Your task to perform on an android device: Search for the new Steph Curry shoes on Nike.com Image 0: 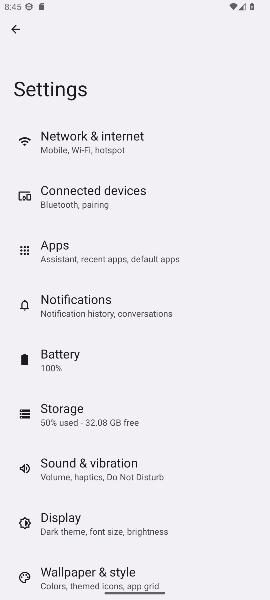
Step 0: press home button
Your task to perform on an android device: Search for the new Steph Curry shoes on Nike.com Image 1: 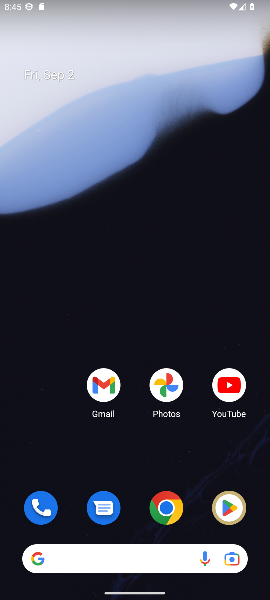
Step 1: drag from (192, 469) to (205, 90)
Your task to perform on an android device: Search for the new Steph Curry shoes on Nike.com Image 2: 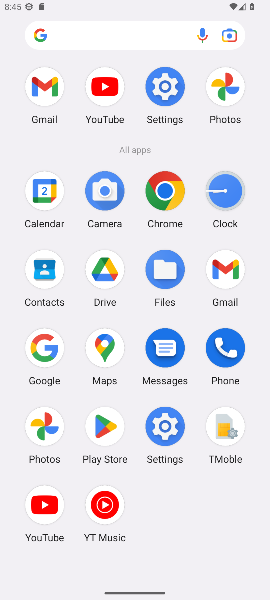
Step 2: click (166, 194)
Your task to perform on an android device: Search for the new Steph Curry shoes on Nike.com Image 3: 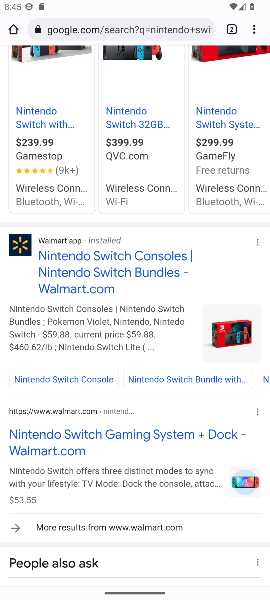
Step 3: drag from (192, 96) to (181, 469)
Your task to perform on an android device: Search for the new Steph Curry shoes on Nike.com Image 4: 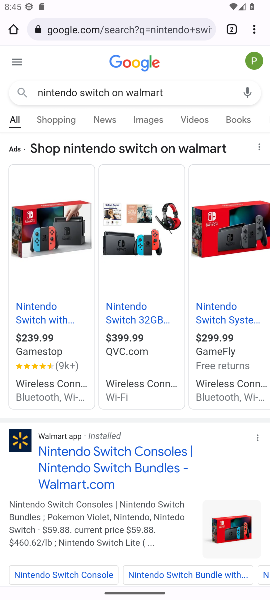
Step 4: click (154, 26)
Your task to perform on an android device: Search for the new Steph Curry shoes on Nike.com Image 5: 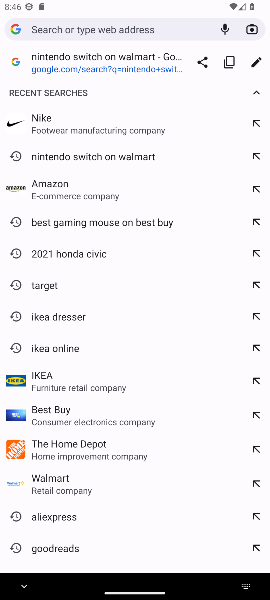
Step 5: type "Nike.com"
Your task to perform on an android device: Search for the new Steph Curry shoes on Nike.com Image 6: 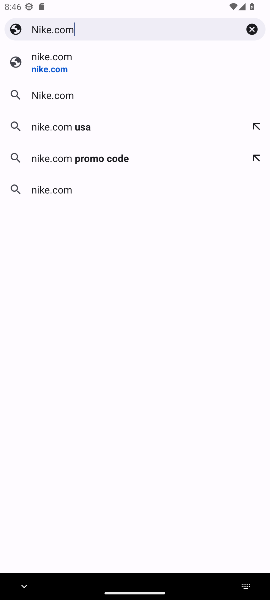
Step 6: click (45, 65)
Your task to perform on an android device: Search for the new Steph Curry shoes on Nike.com Image 7: 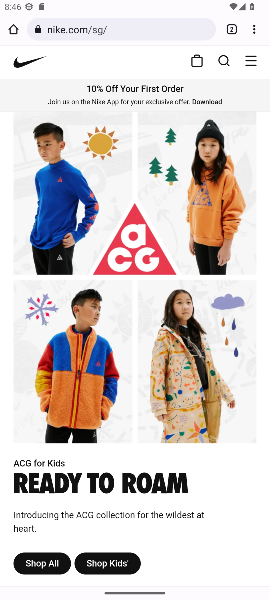
Step 7: click (222, 59)
Your task to perform on an android device: Search for the new Steph Curry shoes on Nike.com Image 8: 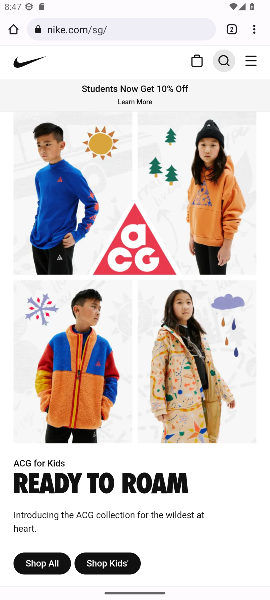
Step 8: click (222, 59)
Your task to perform on an android device: Search for the new Steph Curry shoes on Nike.com Image 9: 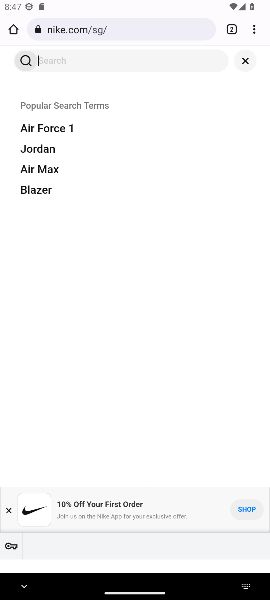
Step 9: type "steph curry shoes "
Your task to perform on an android device: Search for the new Steph Curry shoes on Nike.com Image 10: 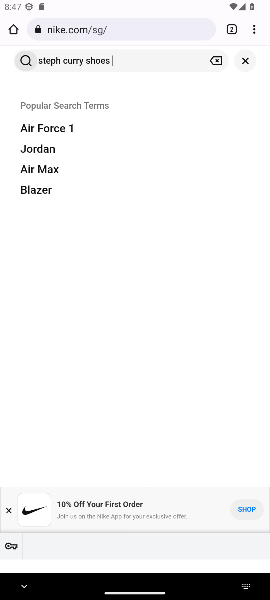
Step 10: click (70, 62)
Your task to perform on an android device: Search for the new Steph Curry shoes on Nike.com Image 11: 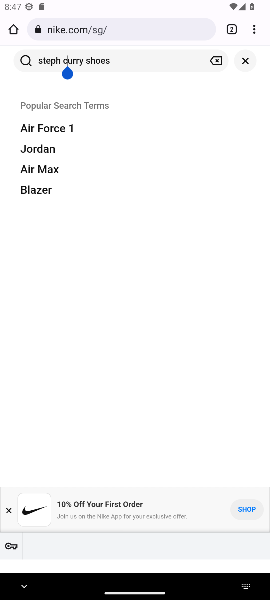
Step 11: click (122, 58)
Your task to perform on an android device: Search for the new Steph Curry shoes on Nike.com Image 12: 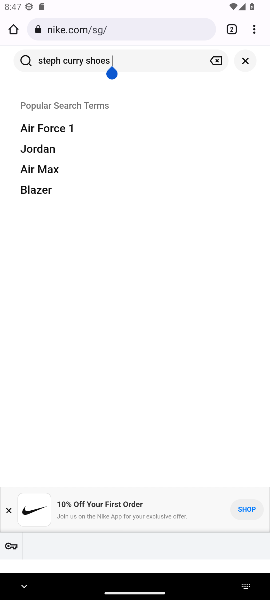
Step 12: click (49, 107)
Your task to perform on an android device: Search for the new Steph Curry shoes on Nike.com Image 13: 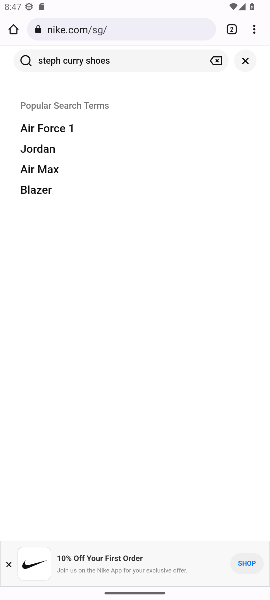
Step 13: click (95, 61)
Your task to perform on an android device: Search for the new Steph Curry shoes on Nike.com Image 14: 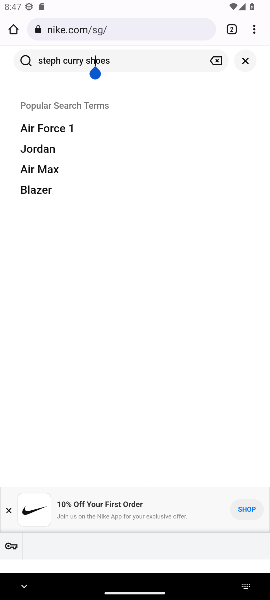
Step 14: click (81, 563)
Your task to perform on an android device: Search for the new Steph Curry shoes on Nike.com Image 15: 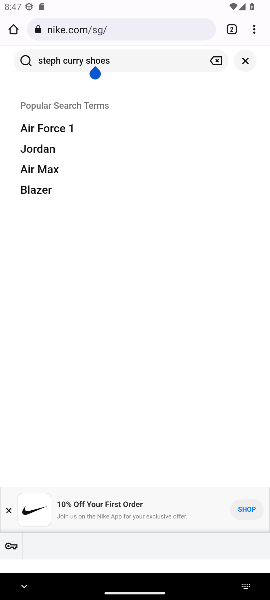
Step 15: click (78, 553)
Your task to perform on an android device: Search for the new Steph Curry shoes on Nike.com Image 16: 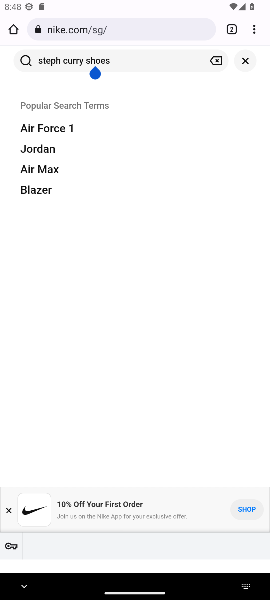
Step 16: click (71, 108)
Your task to perform on an android device: Search for the new Steph Curry shoes on Nike.com Image 17: 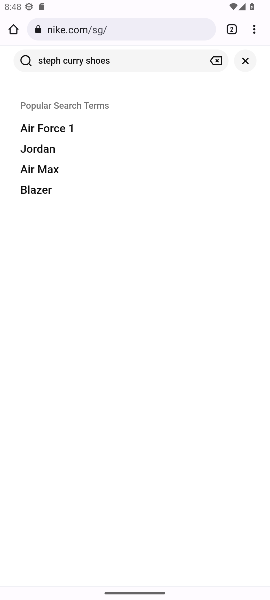
Step 17: task complete